Your task to perform on an android device: stop showing notifications on the lock screen Image 0: 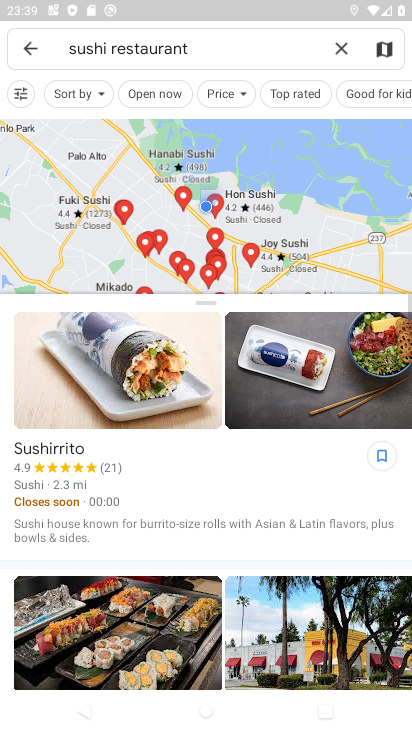
Step 0: press home button
Your task to perform on an android device: stop showing notifications on the lock screen Image 1: 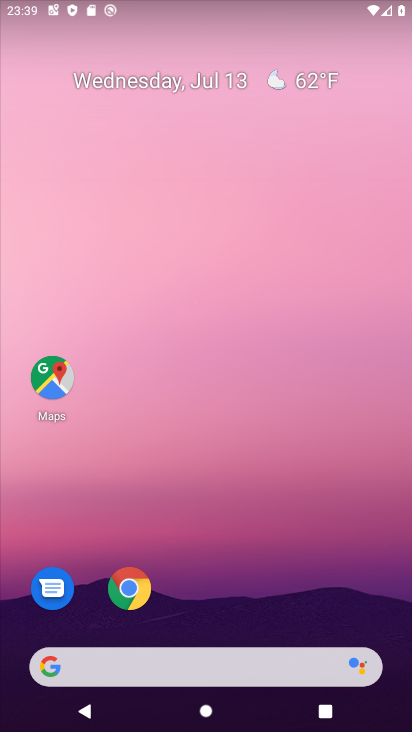
Step 1: drag from (167, 560) to (185, 218)
Your task to perform on an android device: stop showing notifications on the lock screen Image 2: 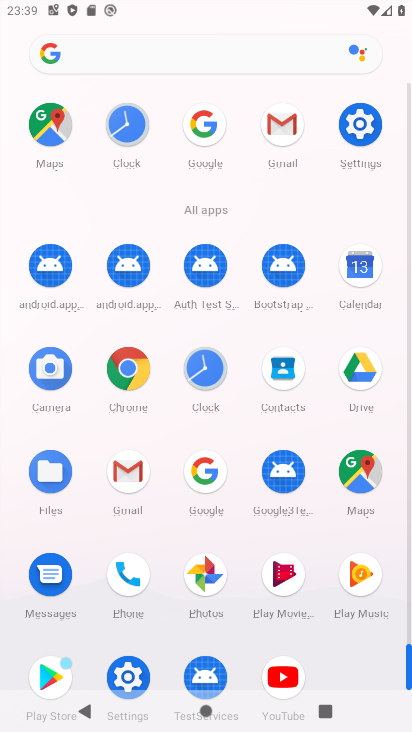
Step 2: click (360, 136)
Your task to perform on an android device: stop showing notifications on the lock screen Image 3: 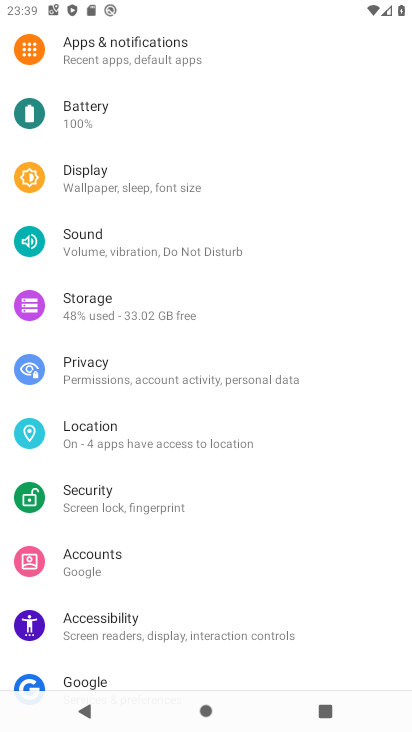
Step 3: click (89, 373)
Your task to perform on an android device: stop showing notifications on the lock screen Image 4: 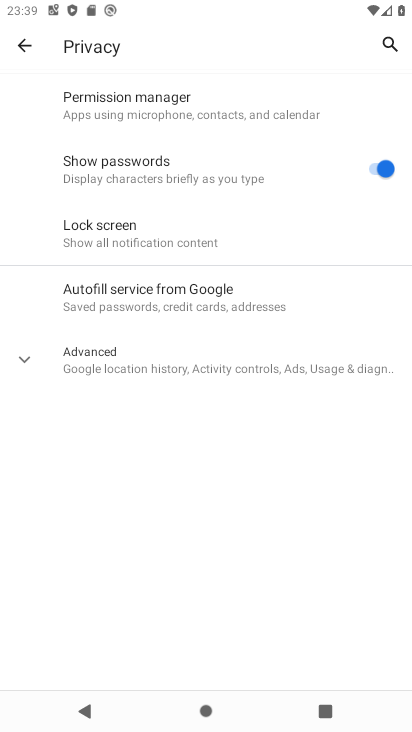
Step 4: click (87, 350)
Your task to perform on an android device: stop showing notifications on the lock screen Image 5: 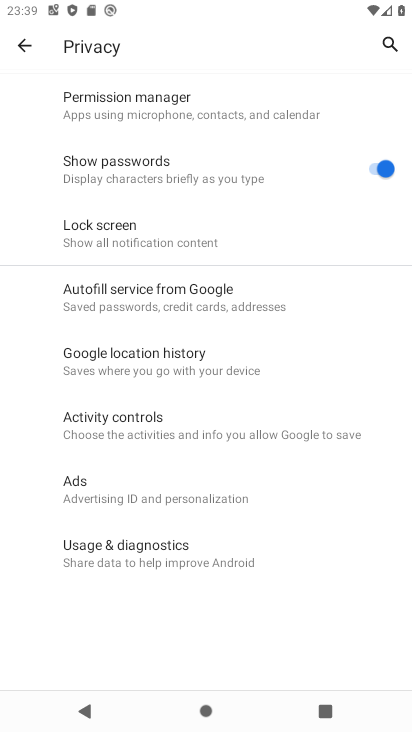
Step 5: click (113, 237)
Your task to perform on an android device: stop showing notifications on the lock screen Image 6: 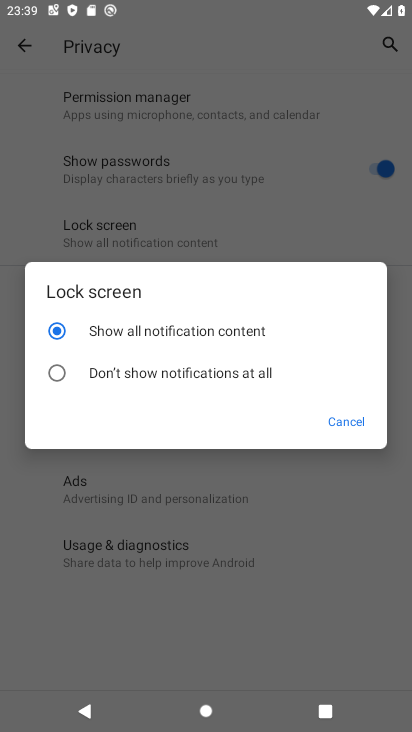
Step 6: click (116, 370)
Your task to perform on an android device: stop showing notifications on the lock screen Image 7: 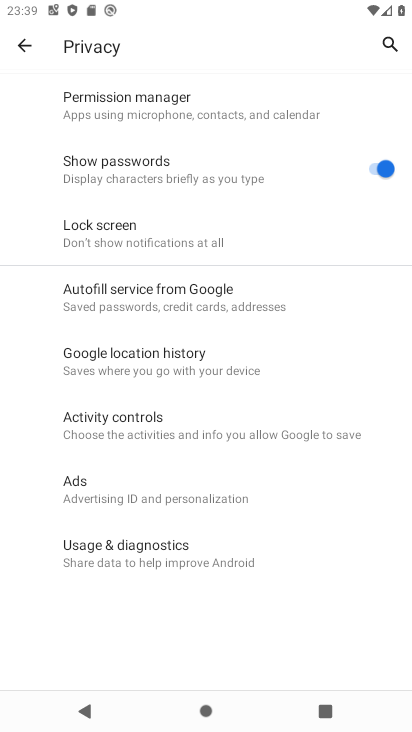
Step 7: task complete